Your task to perform on an android device: What's on my calendar today? Image 0: 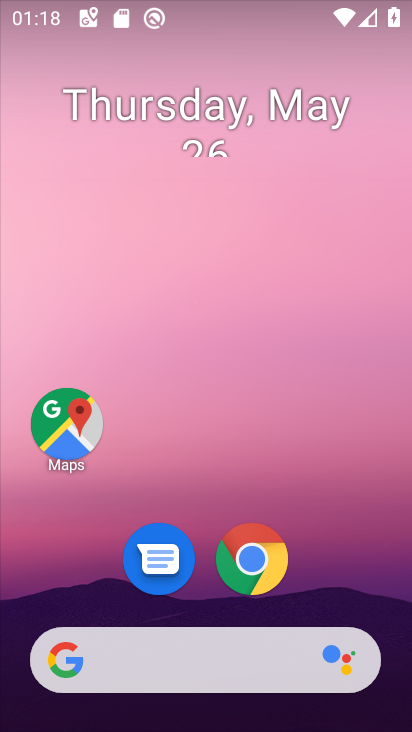
Step 0: drag from (329, 500) to (284, 150)
Your task to perform on an android device: What's on my calendar today? Image 1: 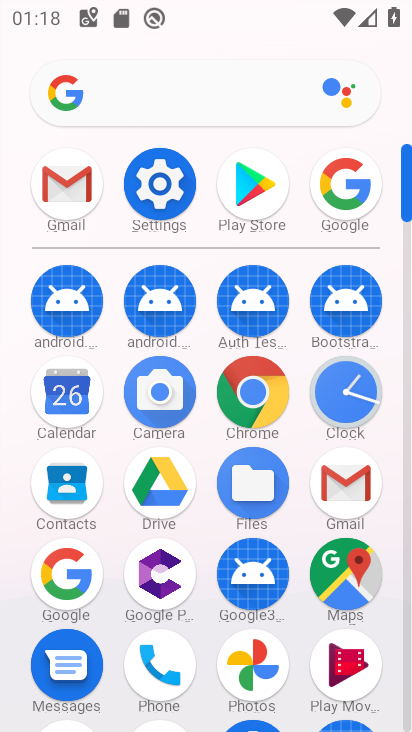
Step 1: click (76, 399)
Your task to perform on an android device: What's on my calendar today? Image 2: 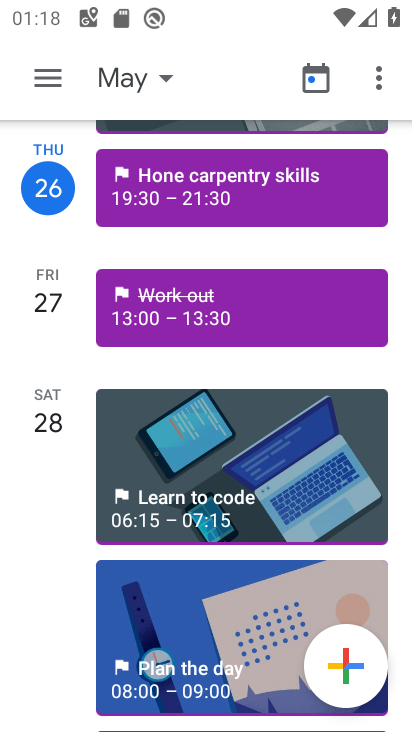
Step 2: click (41, 72)
Your task to perform on an android device: What's on my calendar today? Image 3: 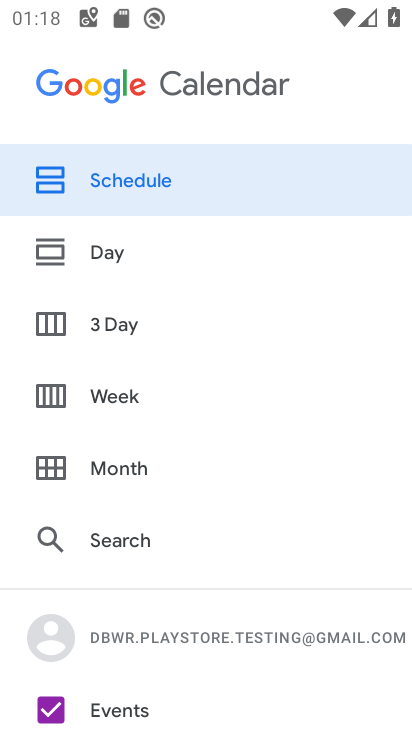
Step 3: click (139, 248)
Your task to perform on an android device: What's on my calendar today? Image 4: 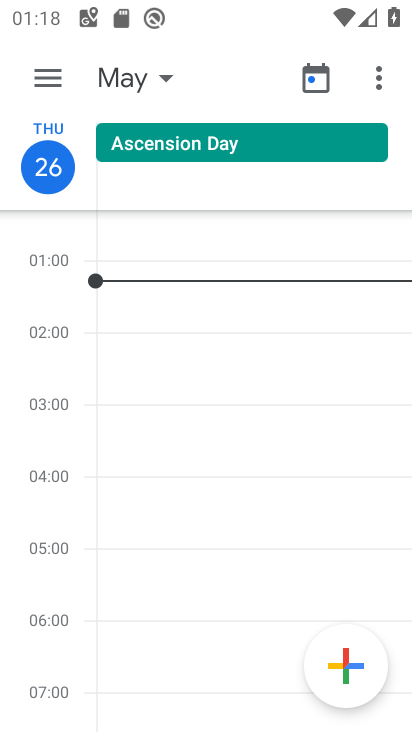
Step 4: task complete